Your task to perform on an android device: What's on my calendar today? Image 0: 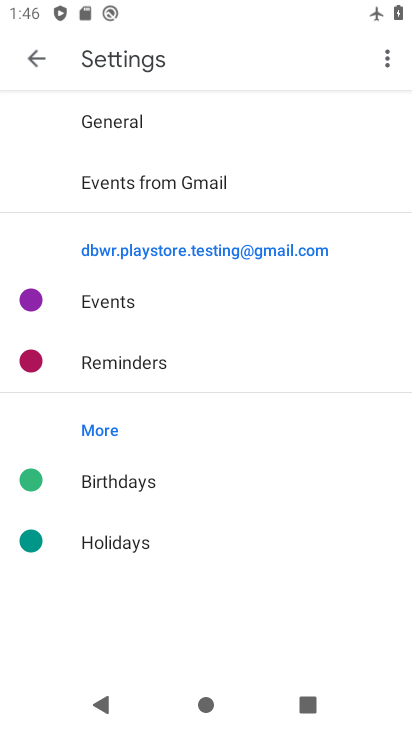
Step 0: press home button
Your task to perform on an android device: What's on my calendar today? Image 1: 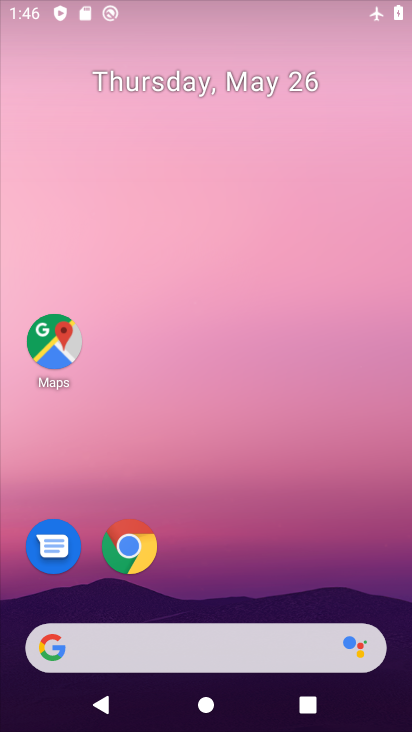
Step 1: drag from (229, 566) to (322, 44)
Your task to perform on an android device: What's on my calendar today? Image 2: 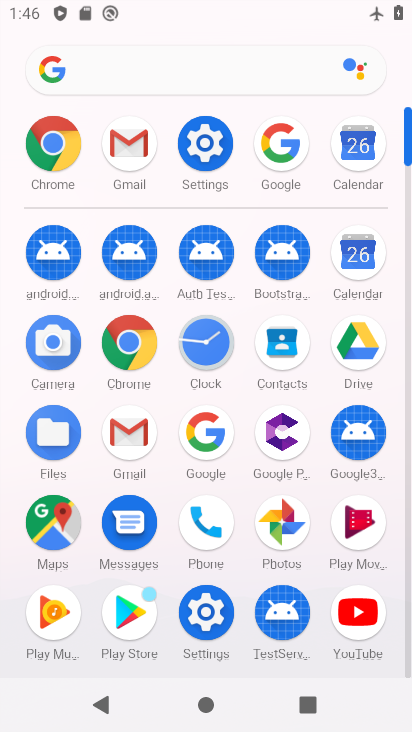
Step 2: click (366, 253)
Your task to perform on an android device: What's on my calendar today? Image 3: 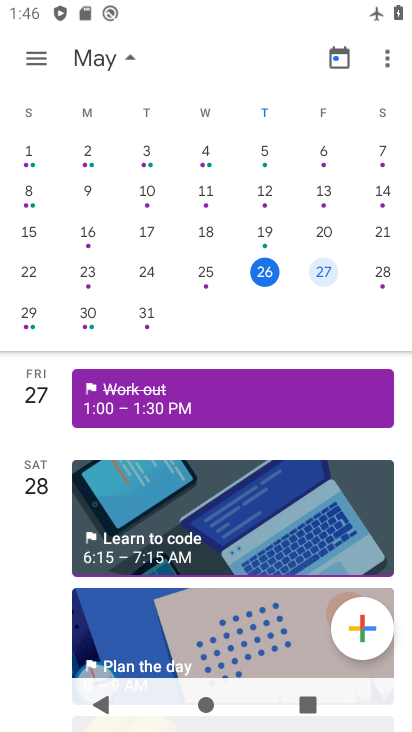
Step 3: click (268, 269)
Your task to perform on an android device: What's on my calendar today? Image 4: 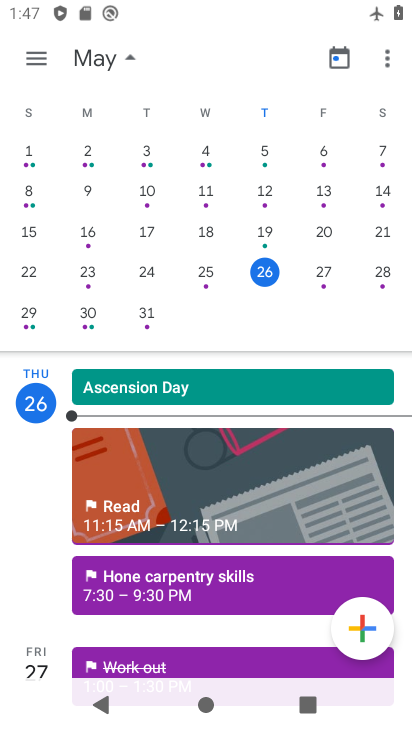
Step 4: task complete